Your task to perform on an android device: change the clock display to digital Image 0: 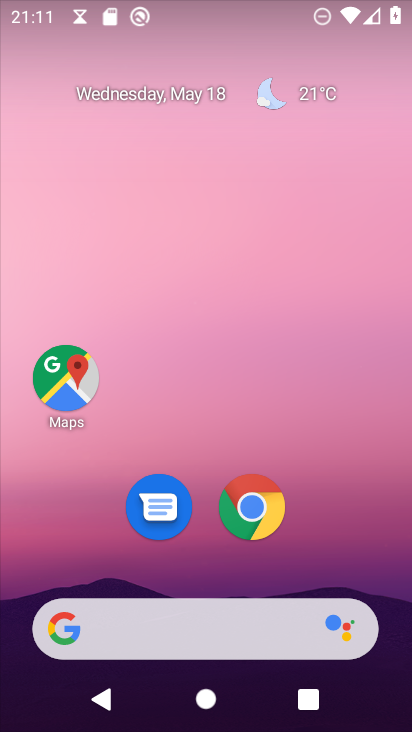
Step 0: drag from (360, 567) to (228, 119)
Your task to perform on an android device: change the clock display to digital Image 1: 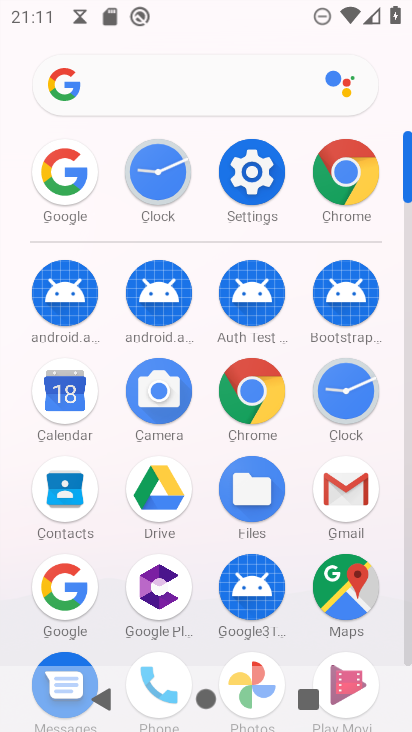
Step 1: click (199, 157)
Your task to perform on an android device: change the clock display to digital Image 2: 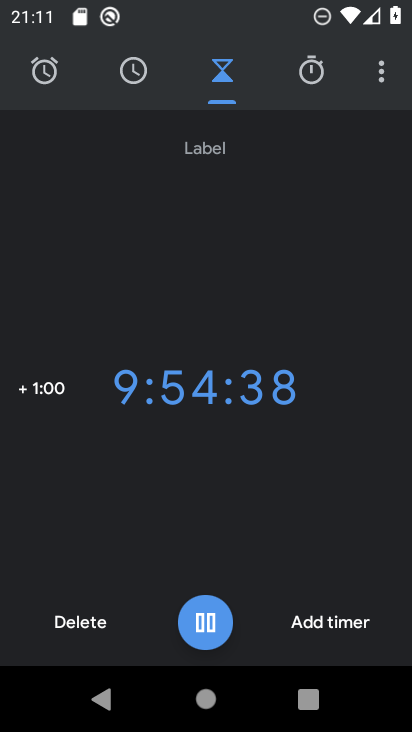
Step 2: click (383, 65)
Your task to perform on an android device: change the clock display to digital Image 3: 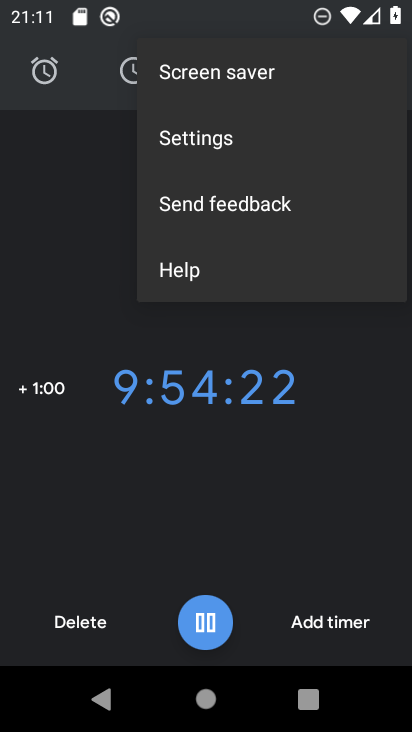
Step 3: click (331, 131)
Your task to perform on an android device: change the clock display to digital Image 4: 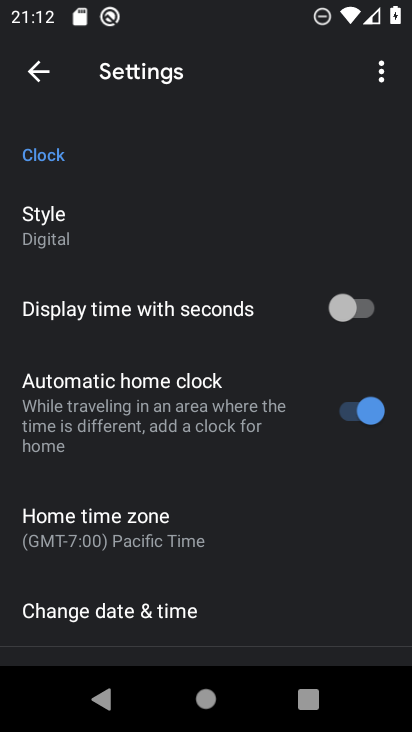
Step 4: click (137, 233)
Your task to perform on an android device: change the clock display to digital Image 5: 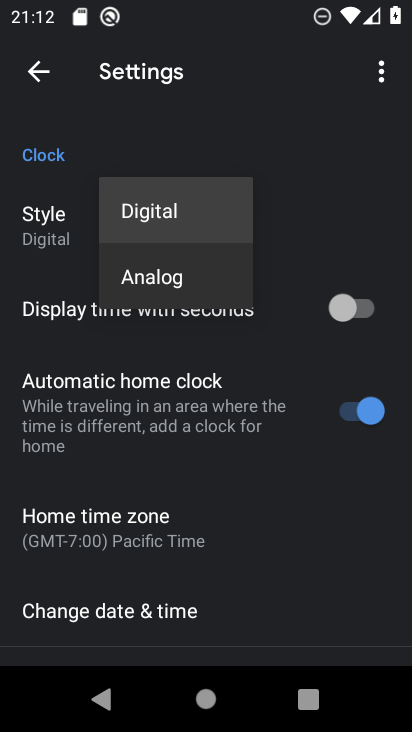
Step 5: task complete